Your task to perform on an android device: Open display settings Image 0: 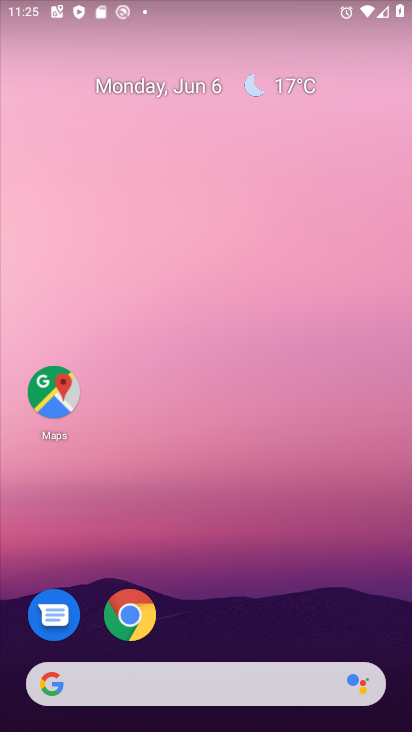
Step 0: drag from (248, 626) to (289, 364)
Your task to perform on an android device: Open display settings Image 1: 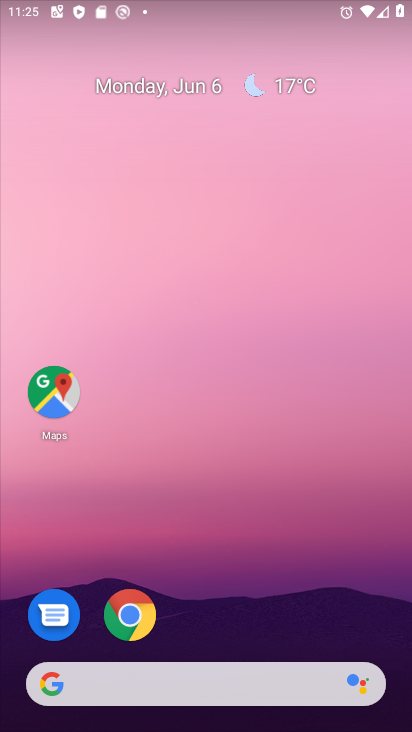
Step 1: drag from (219, 640) to (269, 140)
Your task to perform on an android device: Open display settings Image 2: 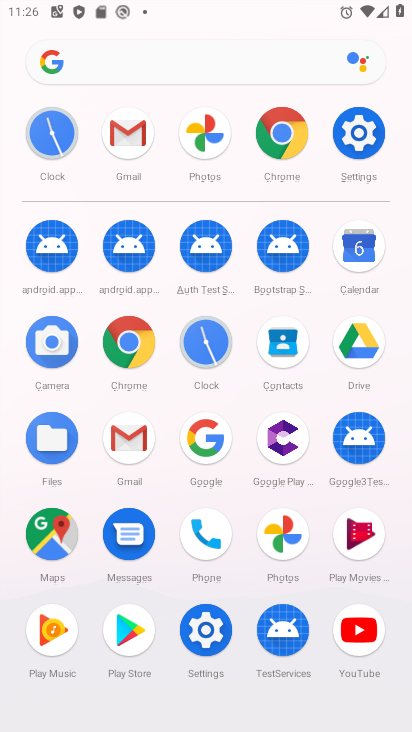
Step 2: click (358, 128)
Your task to perform on an android device: Open display settings Image 3: 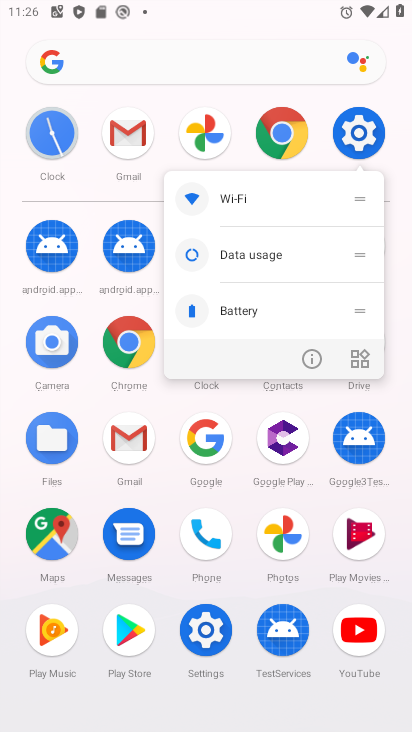
Step 3: click (355, 133)
Your task to perform on an android device: Open display settings Image 4: 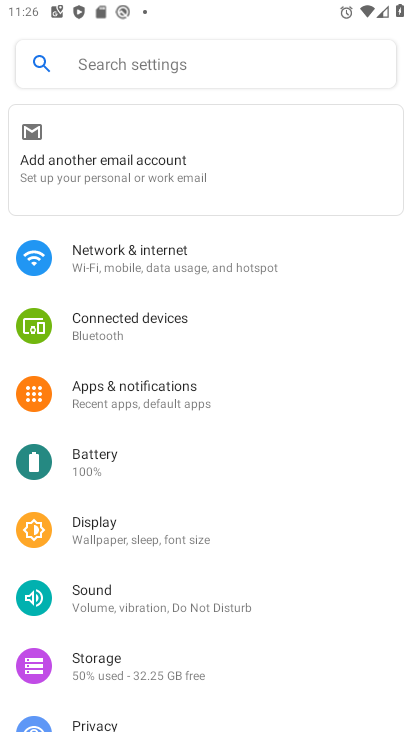
Step 4: click (143, 523)
Your task to perform on an android device: Open display settings Image 5: 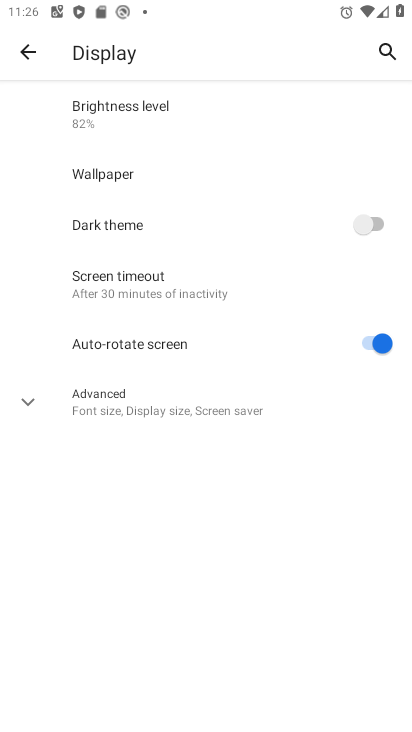
Step 5: click (37, 402)
Your task to perform on an android device: Open display settings Image 6: 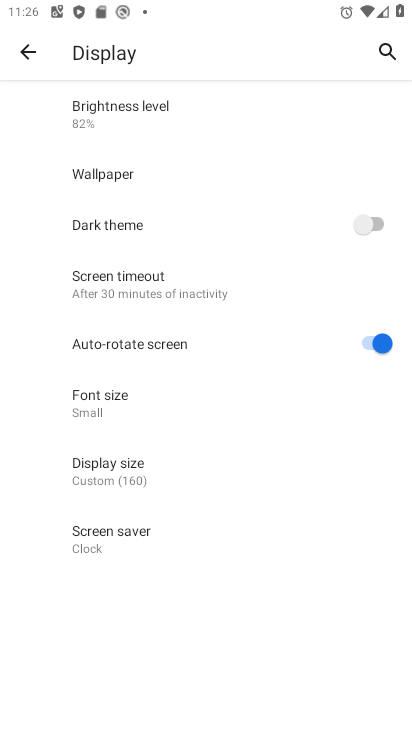
Step 6: task complete